Your task to perform on an android device: toggle pop-ups in chrome Image 0: 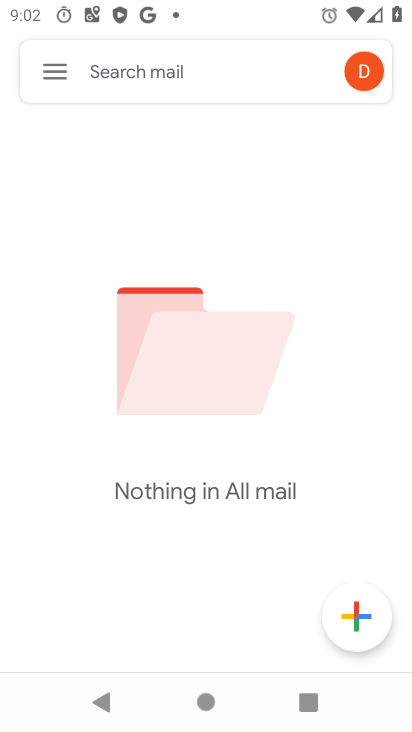
Step 0: press home button
Your task to perform on an android device: toggle pop-ups in chrome Image 1: 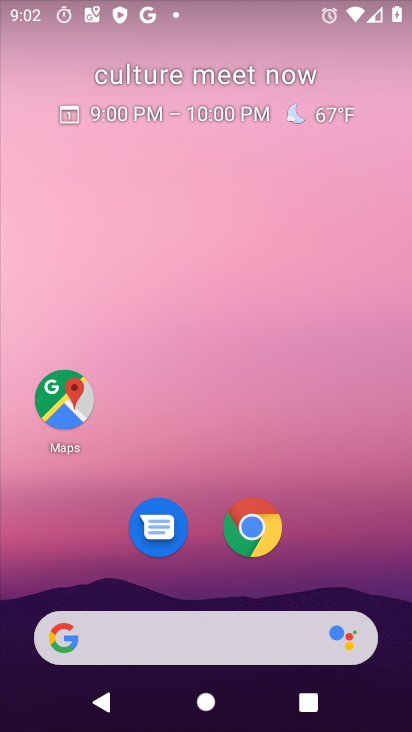
Step 1: click (253, 538)
Your task to perform on an android device: toggle pop-ups in chrome Image 2: 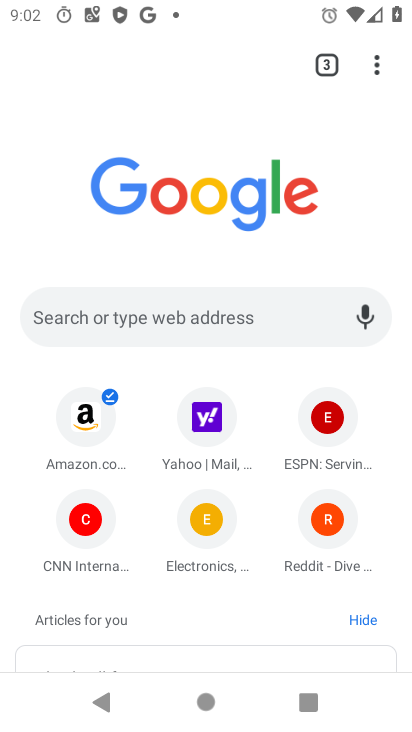
Step 2: click (378, 68)
Your task to perform on an android device: toggle pop-ups in chrome Image 3: 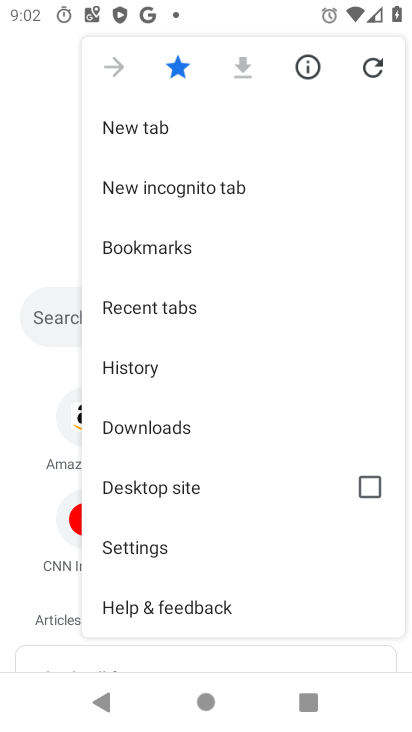
Step 3: click (140, 550)
Your task to perform on an android device: toggle pop-ups in chrome Image 4: 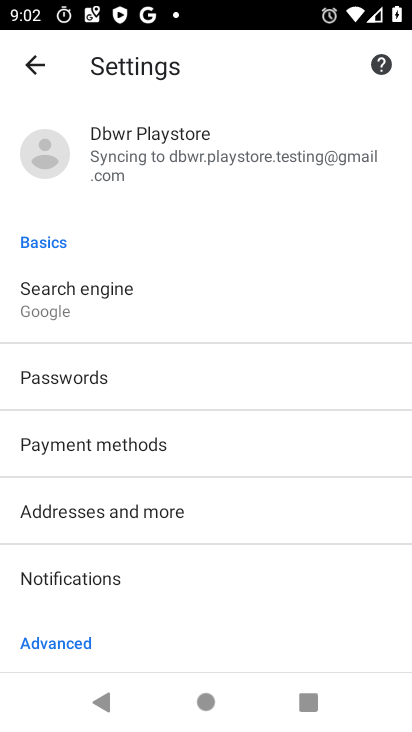
Step 4: drag from (138, 655) to (138, 272)
Your task to perform on an android device: toggle pop-ups in chrome Image 5: 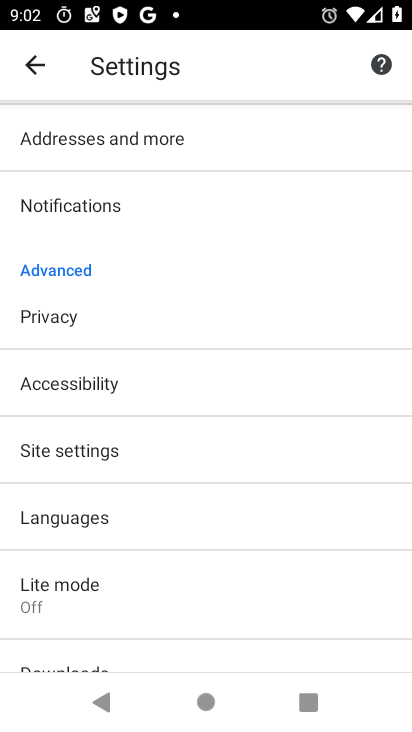
Step 5: click (59, 454)
Your task to perform on an android device: toggle pop-ups in chrome Image 6: 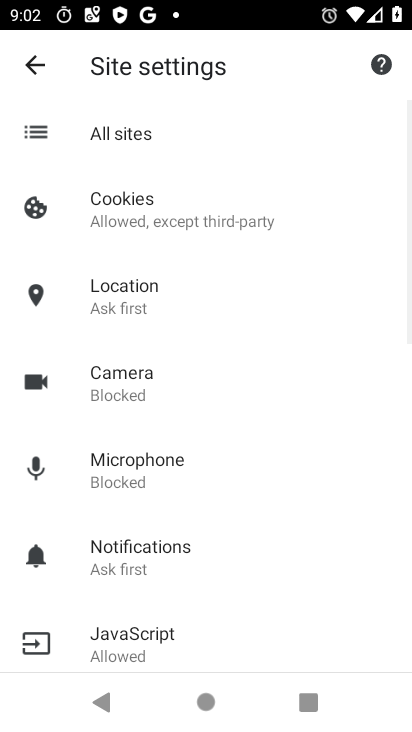
Step 6: drag from (183, 633) to (188, 258)
Your task to perform on an android device: toggle pop-ups in chrome Image 7: 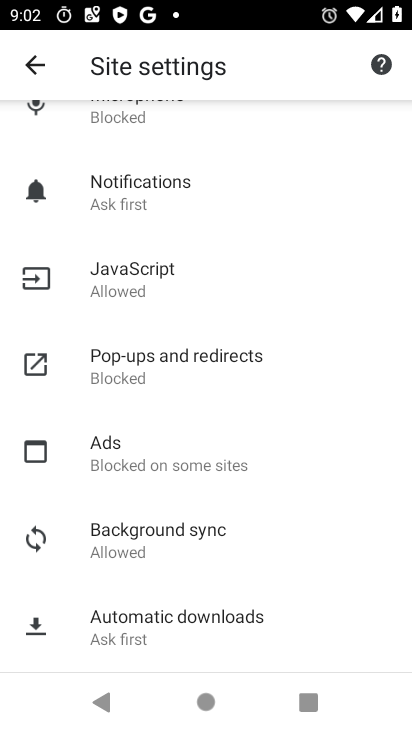
Step 7: click (129, 368)
Your task to perform on an android device: toggle pop-ups in chrome Image 8: 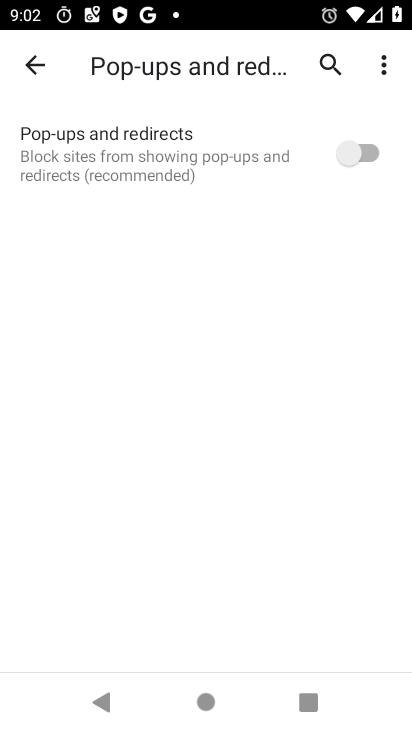
Step 8: click (373, 154)
Your task to perform on an android device: toggle pop-ups in chrome Image 9: 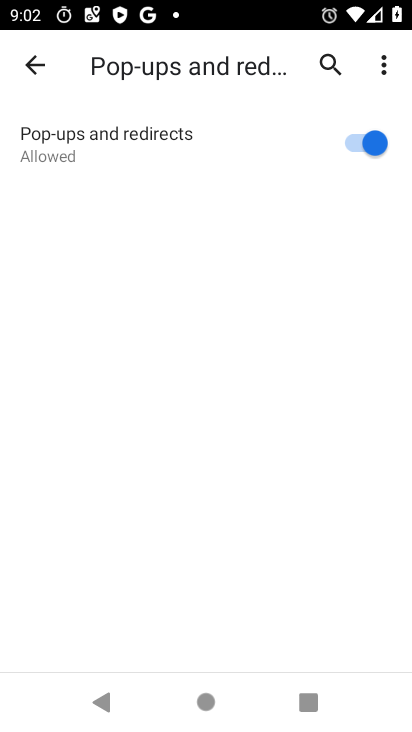
Step 9: task complete